Your task to perform on an android device: Show me the alarms in the clock app Image 0: 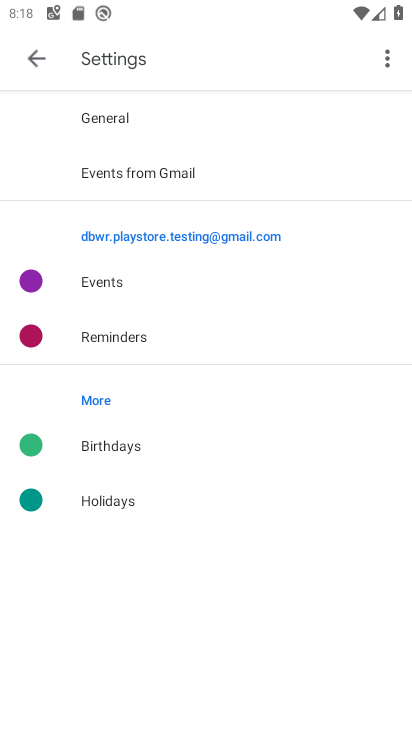
Step 0: click (34, 58)
Your task to perform on an android device: Show me the alarms in the clock app Image 1: 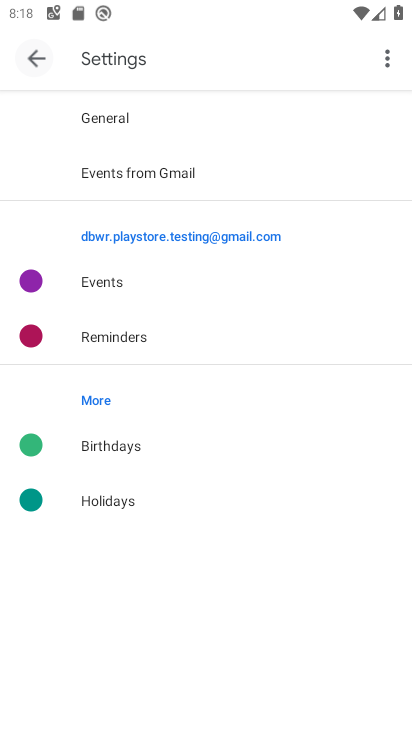
Step 1: click (34, 58)
Your task to perform on an android device: Show me the alarms in the clock app Image 2: 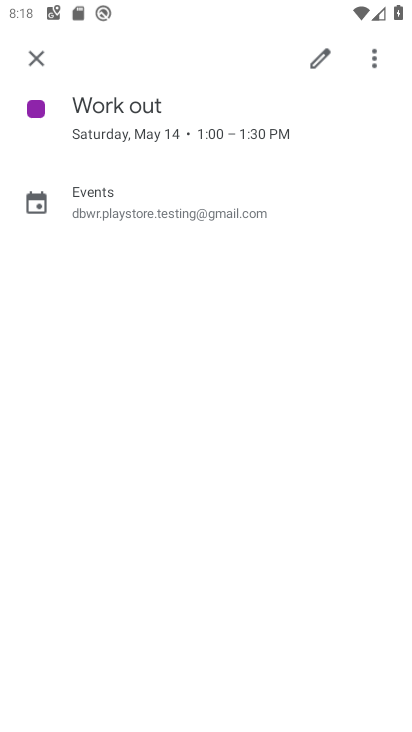
Step 2: press back button
Your task to perform on an android device: Show me the alarms in the clock app Image 3: 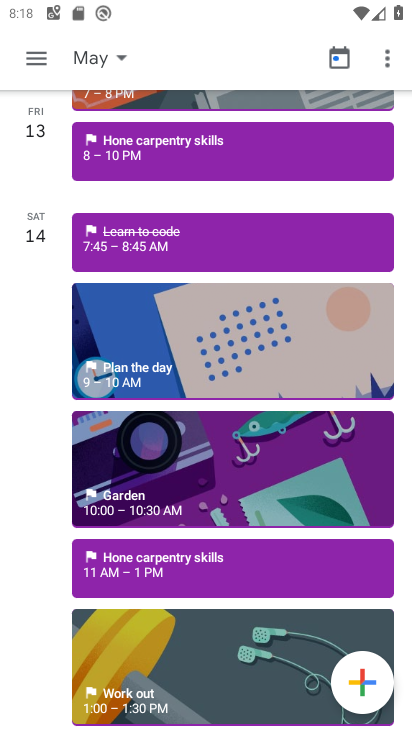
Step 3: press home button
Your task to perform on an android device: Show me the alarms in the clock app Image 4: 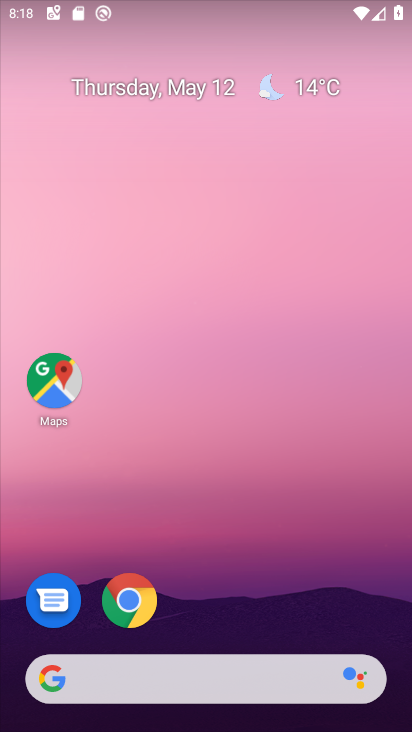
Step 4: drag from (277, 619) to (137, 70)
Your task to perform on an android device: Show me the alarms in the clock app Image 5: 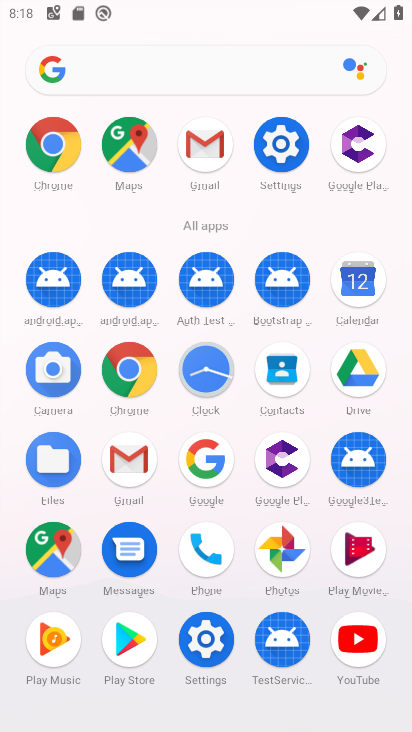
Step 5: click (192, 373)
Your task to perform on an android device: Show me the alarms in the clock app Image 6: 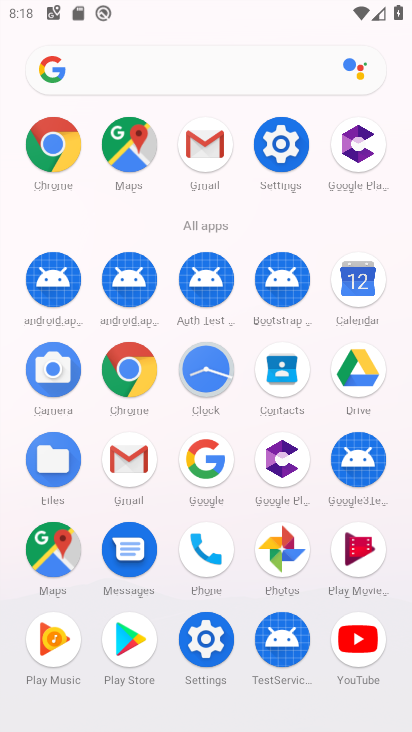
Step 6: click (192, 373)
Your task to perform on an android device: Show me the alarms in the clock app Image 7: 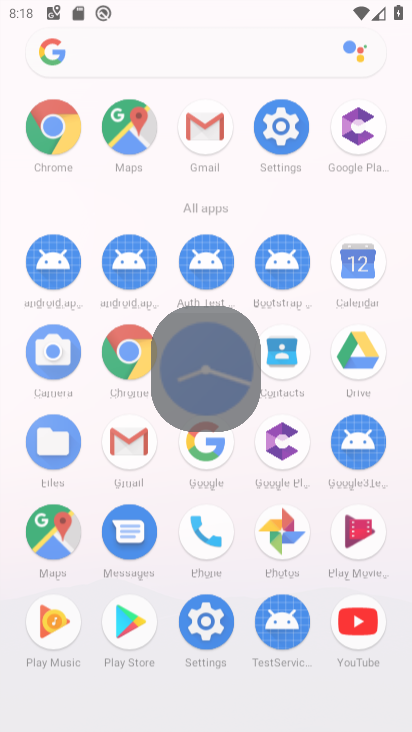
Step 7: click (196, 364)
Your task to perform on an android device: Show me the alarms in the clock app Image 8: 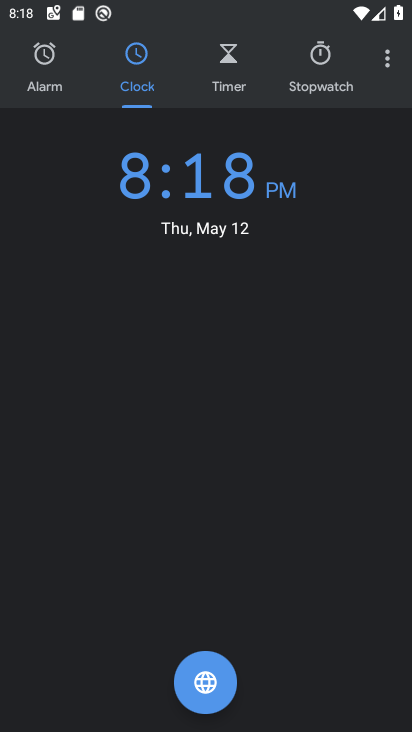
Step 8: click (49, 91)
Your task to perform on an android device: Show me the alarms in the clock app Image 9: 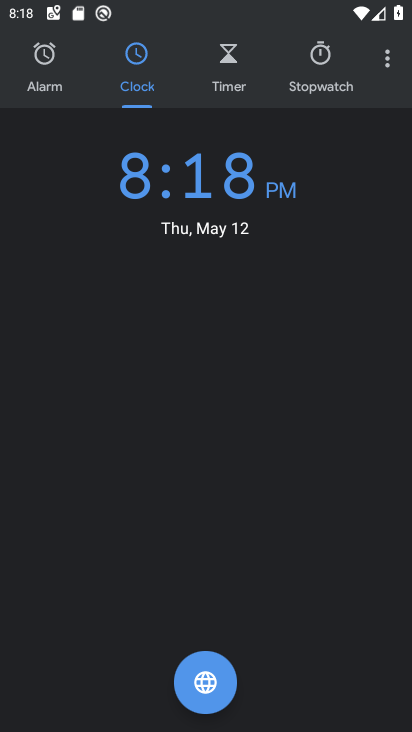
Step 9: click (49, 91)
Your task to perform on an android device: Show me the alarms in the clock app Image 10: 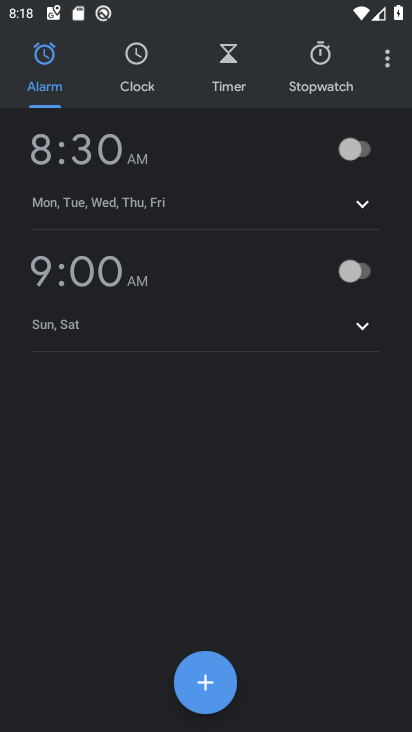
Step 10: task complete